Your task to perform on an android device: toggle airplane mode Image 0: 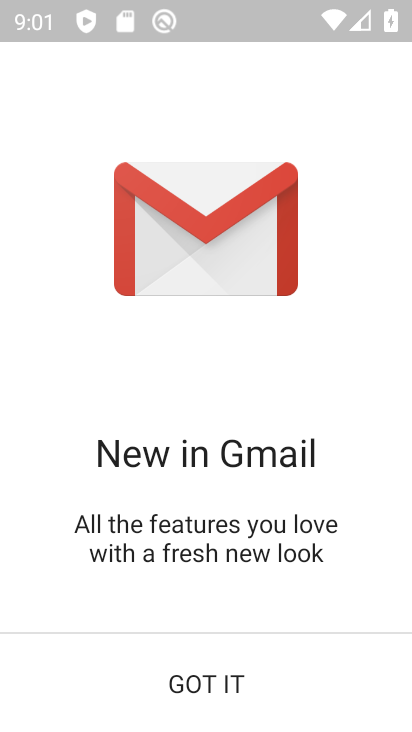
Step 0: press back button
Your task to perform on an android device: toggle airplane mode Image 1: 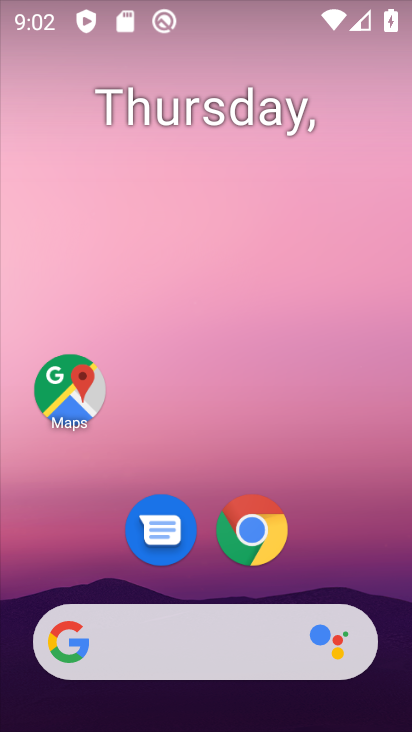
Step 1: drag from (339, 545) to (264, 26)
Your task to perform on an android device: toggle airplane mode Image 2: 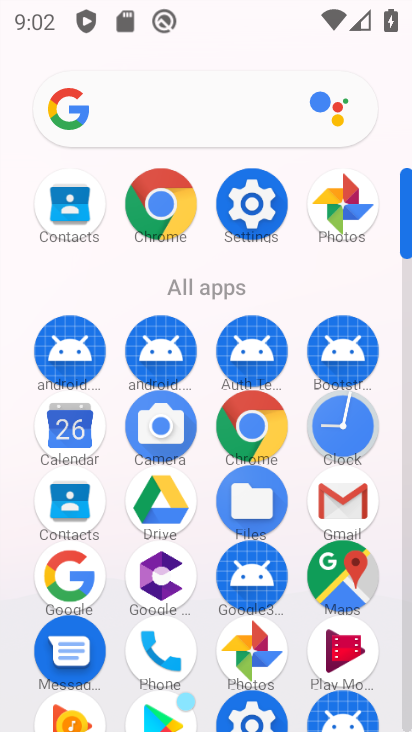
Step 2: click (246, 199)
Your task to perform on an android device: toggle airplane mode Image 3: 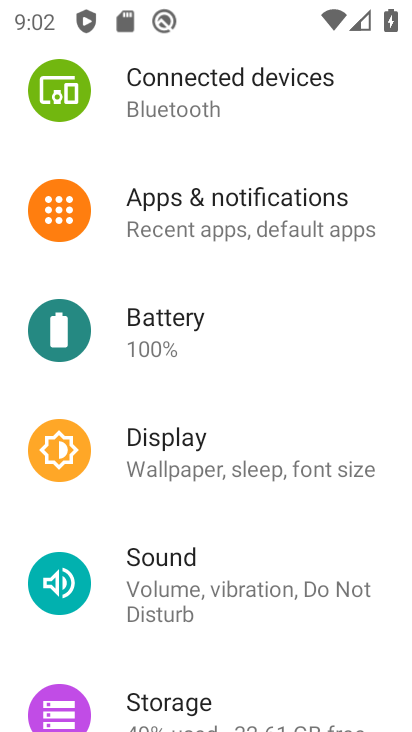
Step 3: drag from (277, 116) to (322, 512)
Your task to perform on an android device: toggle airplane mode Image 4: 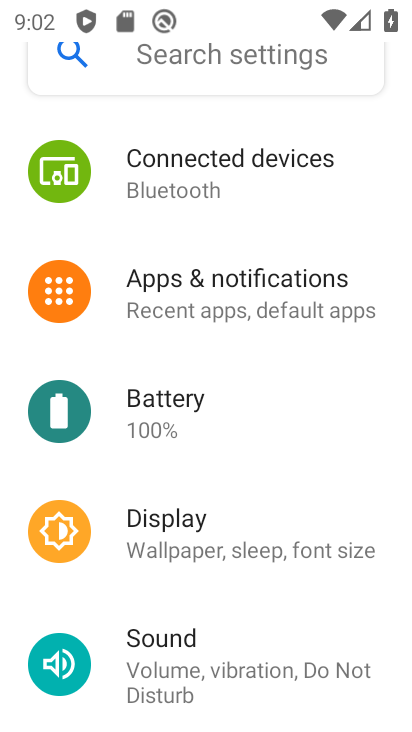
Step 4: drag from (294, 200) to (272, 477)
Your task to perform on an android device: toggle airplane mode Image 5: 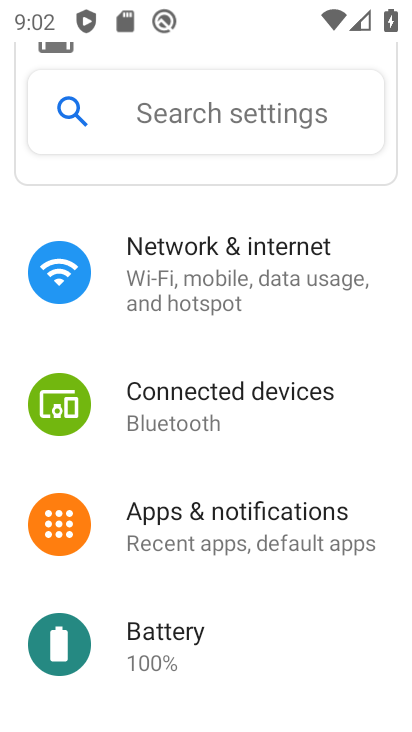
Step 5: click (242, 272)
Your task to perform on an android device: toggle airplane mode Image 6: 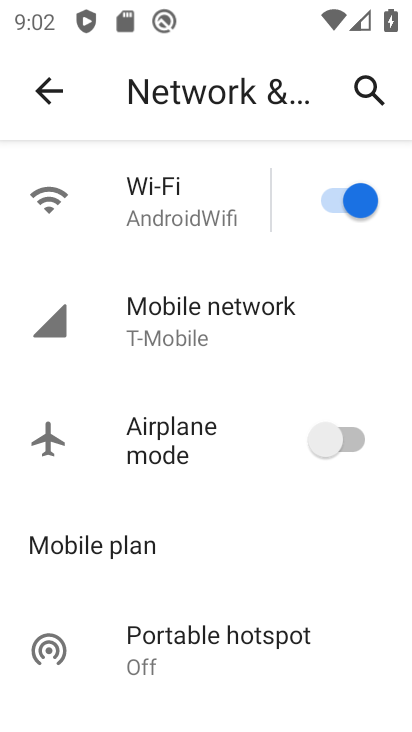
Step 6: click (335, 428)
Your task to perform on an android device: toggle airplane mode Image 7: 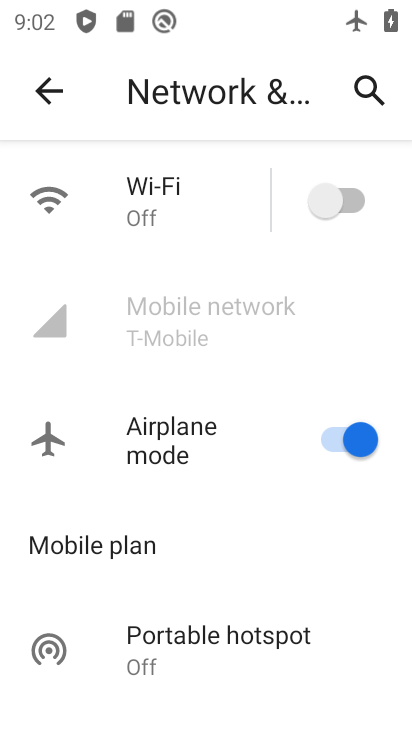
Step 7: task complete